Your task to perform on an android device: Go to CNN.com Image 0: 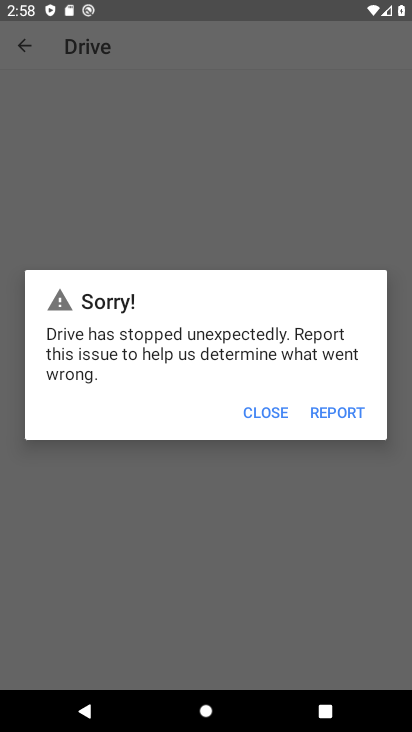
Step 0: press home button
Your task to perform on an android device: Go to CNN.com Image 1: 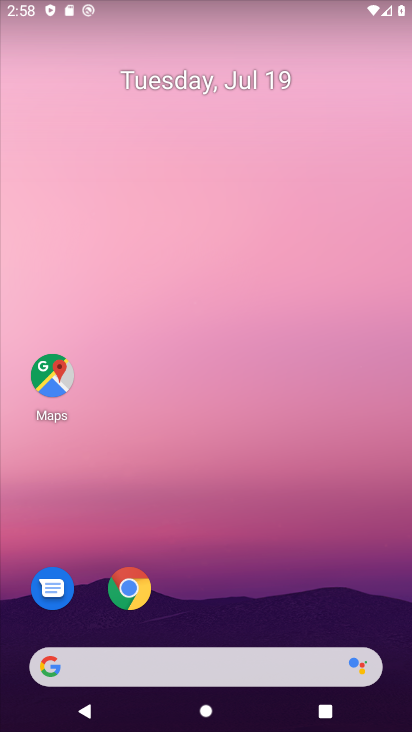
Step 1: click (122, 585)
Your task to perform on an android device: Go to CNN.com Image 2: 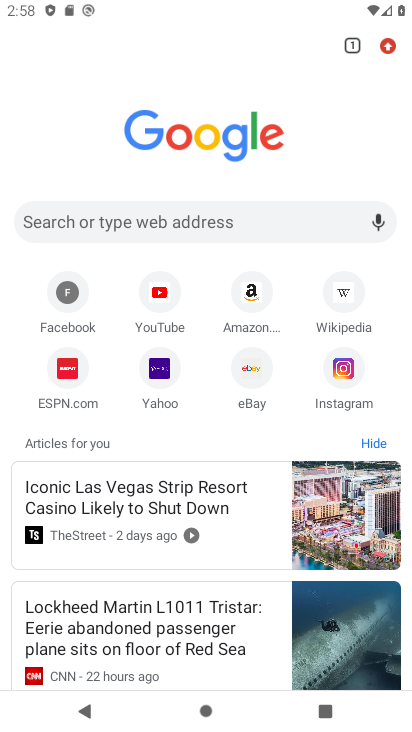
Step 2: click (171, 209)
Your task to perform on an android device: Go to CNN.com Image 3: 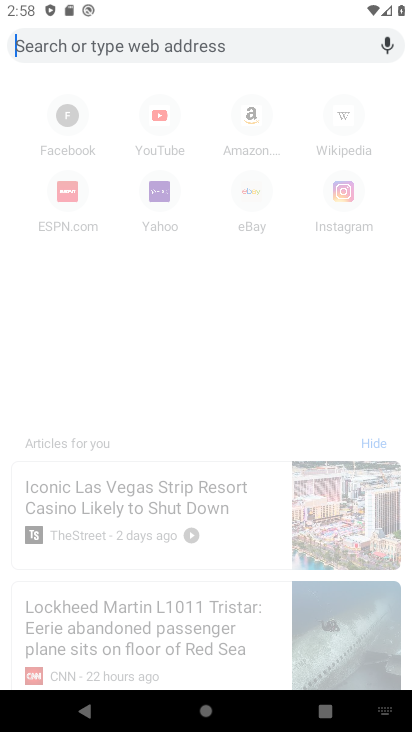
Step 3: type "cnn.com"
Your task to perform on an android device: Go to CNN.com Image 4: 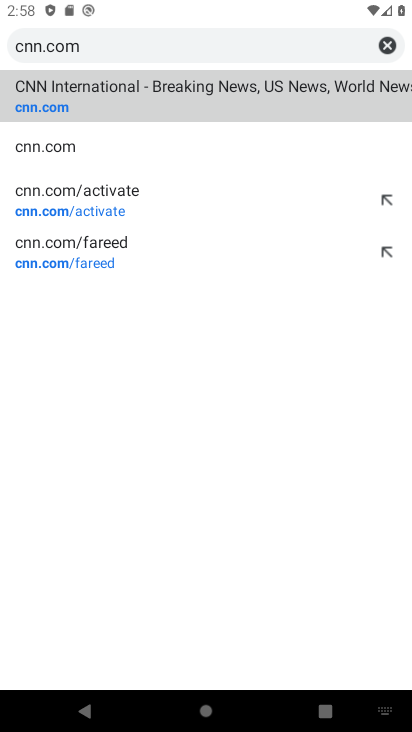
Step 4: click (72, 87)
Your task to perform on an android device: Go to CNN.com Image 5: 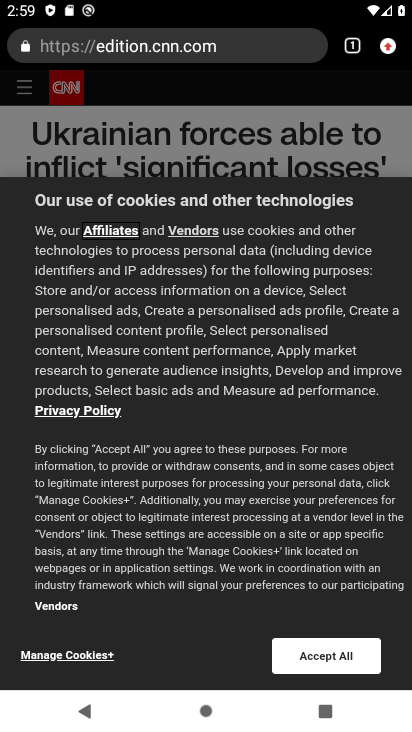
Step 5: task complete